Your task to perform on an android device: uninstall "Clock" Image 0: 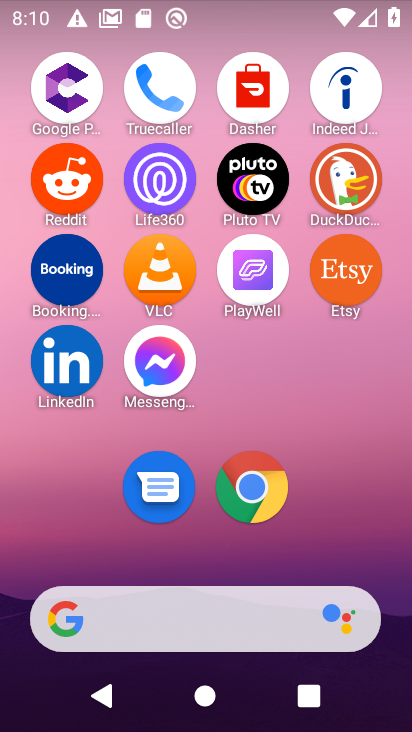
Step 0: drag from (375, 544) to (401, 73)
Your task to perform on an android device: uninstall "Clock" Image 1: 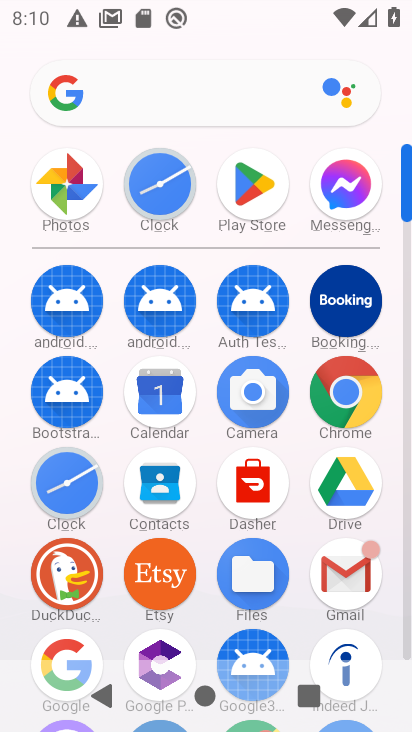
Step 1: click (263, 182)
Your task to perform on an android device: uninstall "Clock" Image 2: 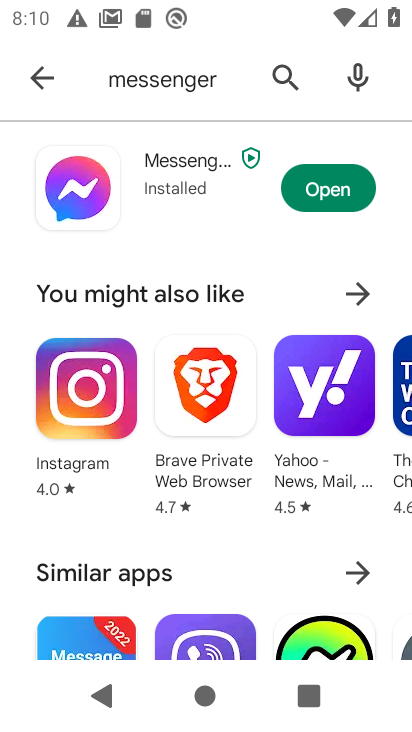
Step 2: click (286, 74)
Your task to perform on an android device: uninstall "Clock" Image 3: 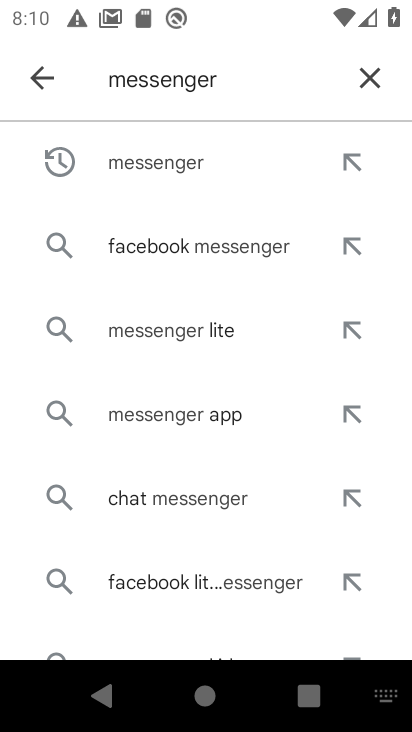
Step 3: click (368, 82)
Your task to perform on an android device: uninstall "Clock" Image 4: 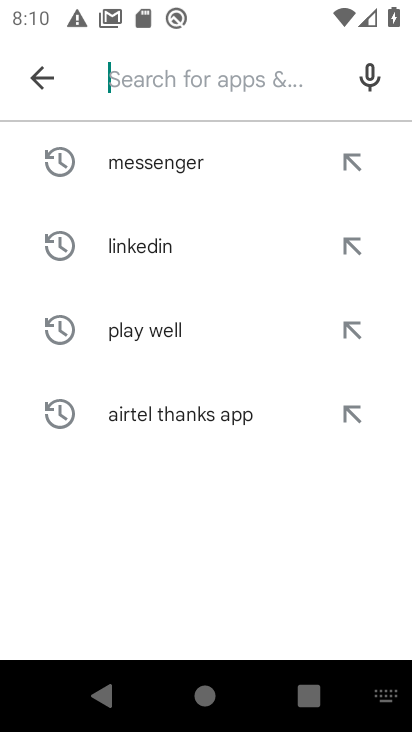
Step 4: type "clock"
Your task to perform on an android device: uninstall "Clock" Image 5: 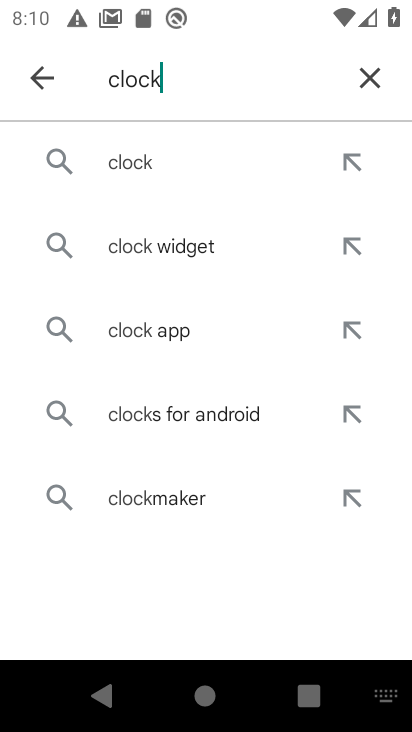
Step 5: click (158, 160)
Your task to perform on an android device: uninstall "Clock" Image 6: 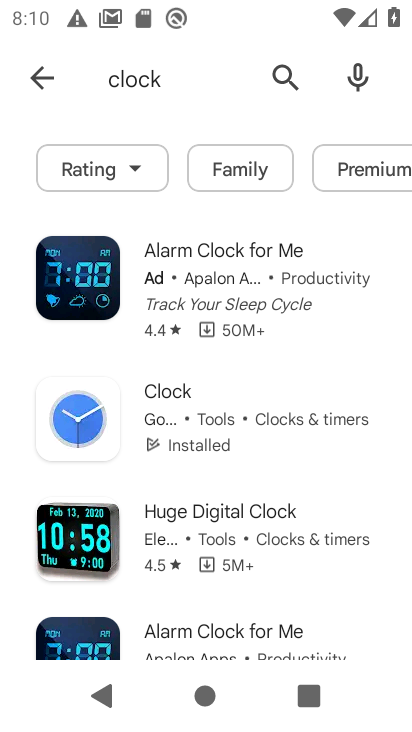
Step 6: click (265, 415)
Your task to perform on an android device: uninstall "Clock" Image 7: 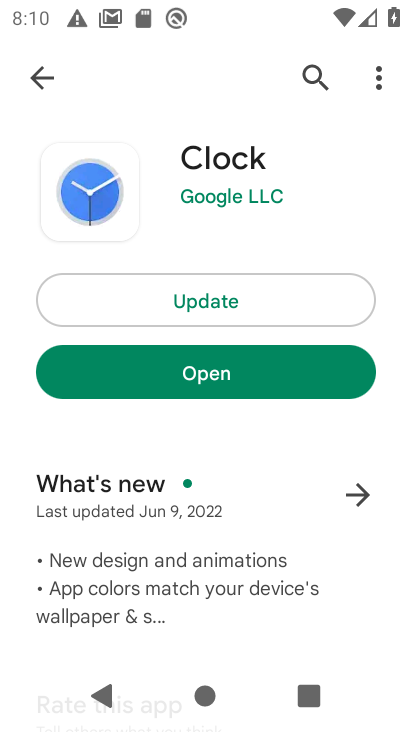
Step 7: task complete